Your task to perform on an android device: change the clock display to digital Image 0: 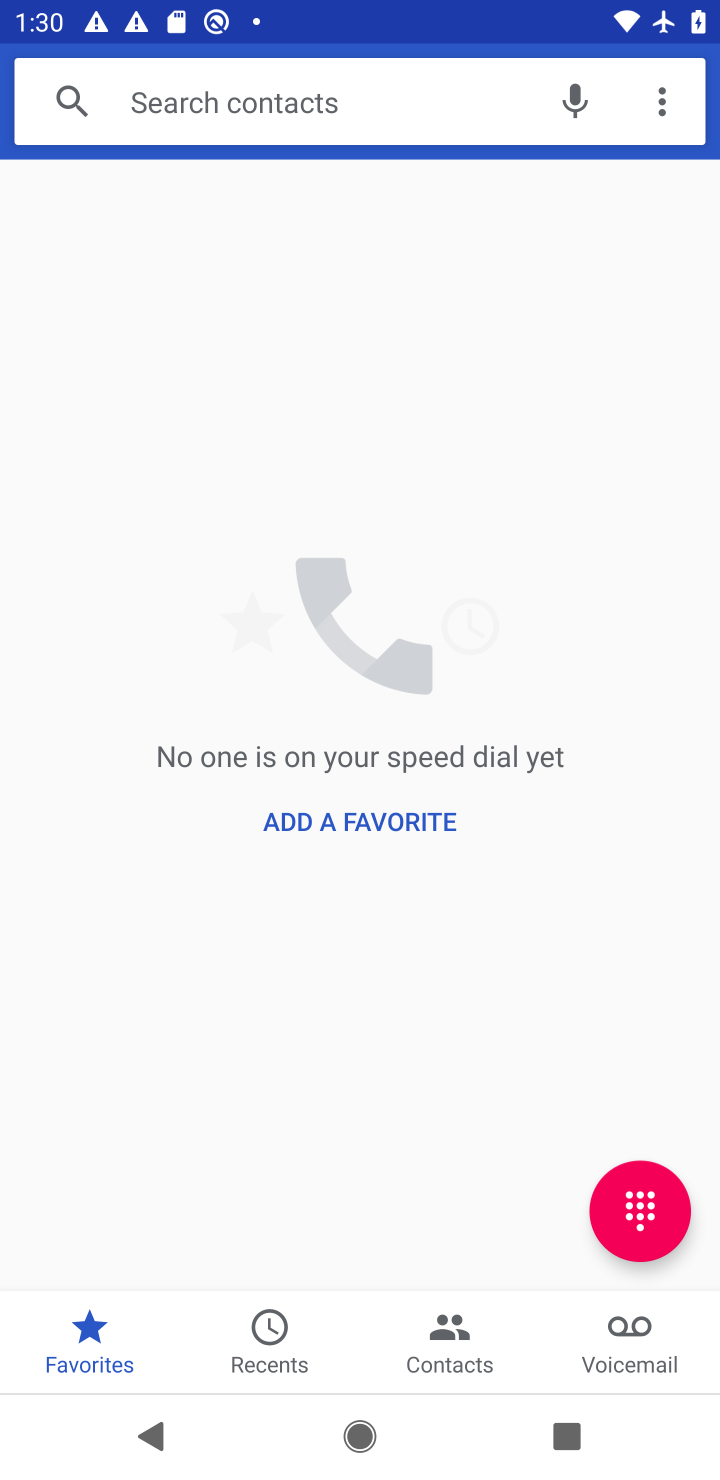
Step 0: press home button
Your task to perform on an android device: change the clock display to digital Image 1: 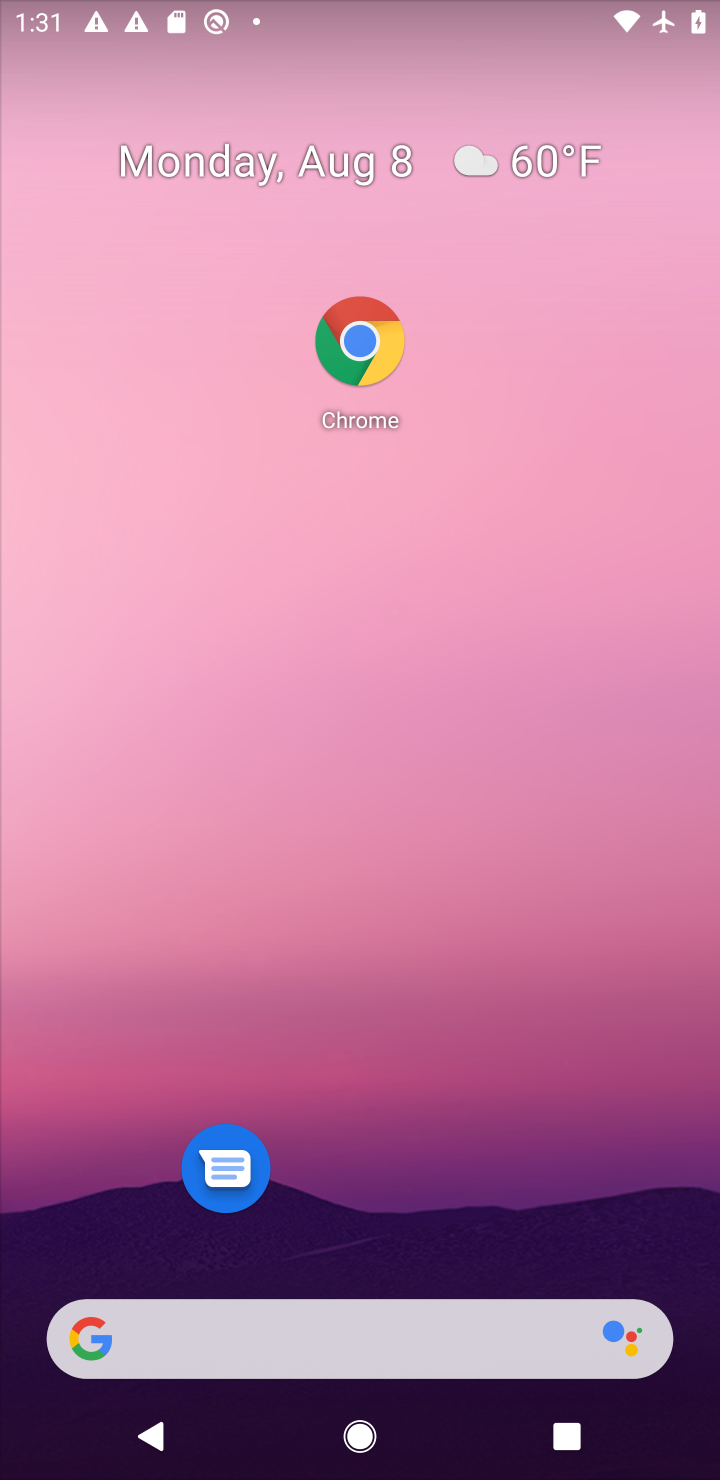
Step 1: drag from (565, 1255) to (389, 60)
Your task to perform on an android device: change the clock display to digital Image 2: 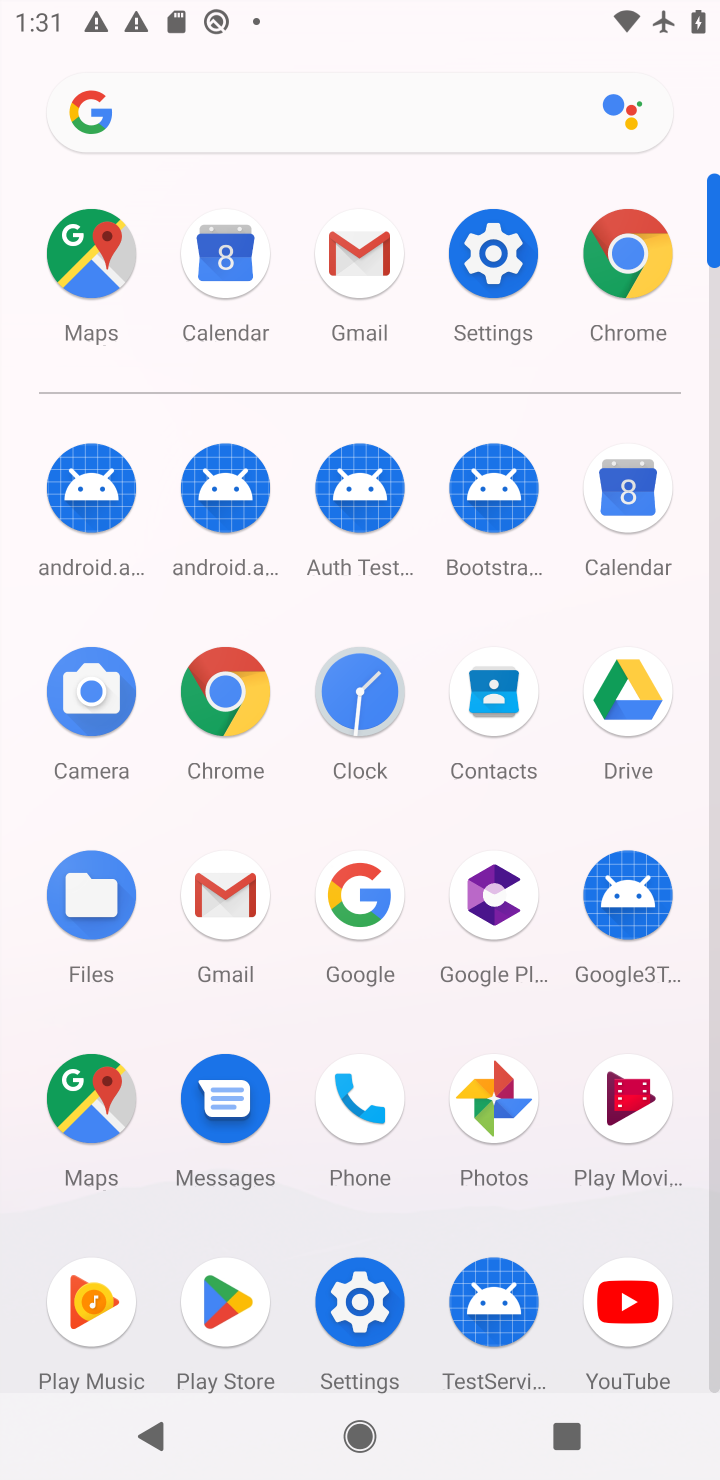
Step 2: click (350, 827)
Your task to perform on an android device: change the clock display to digital Image 3: 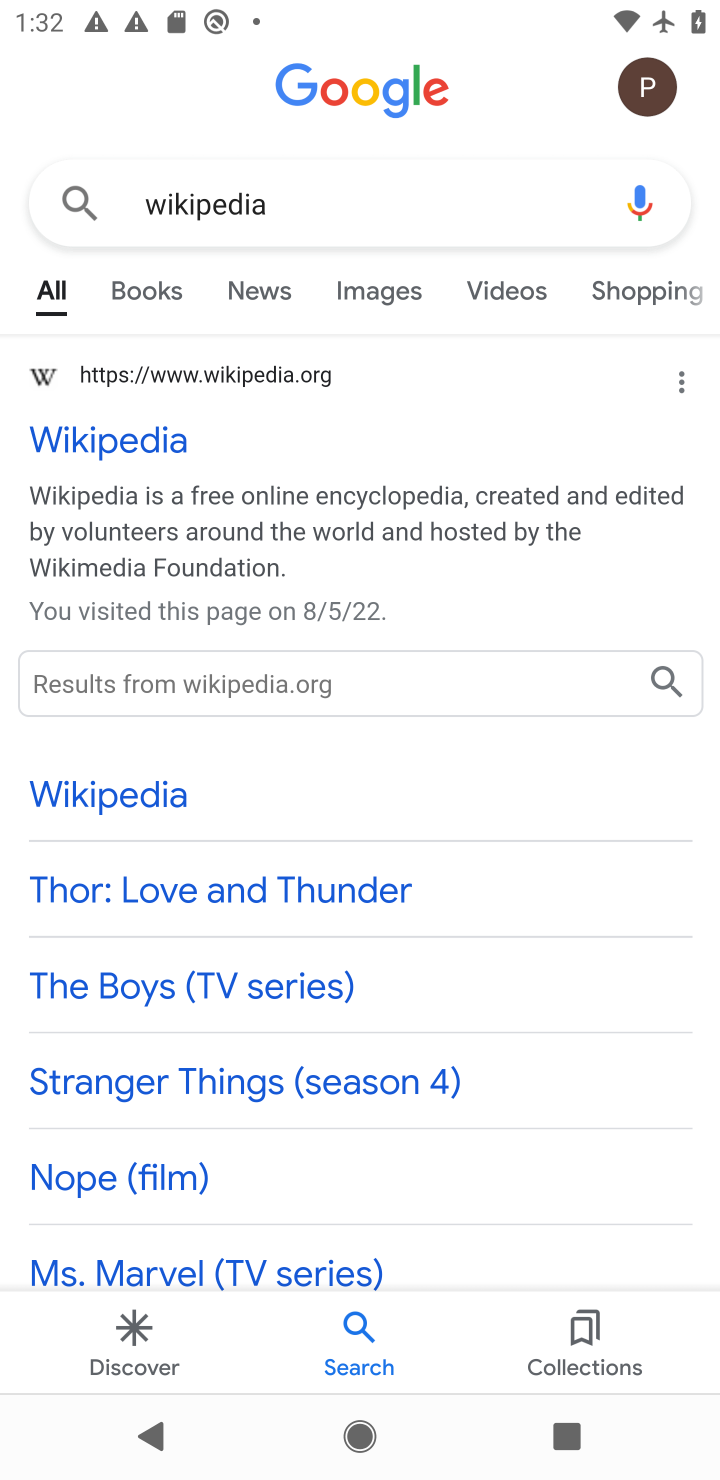
Step 3: press home button
Your task to perform on an android device: change the clock display to digital Image 4: 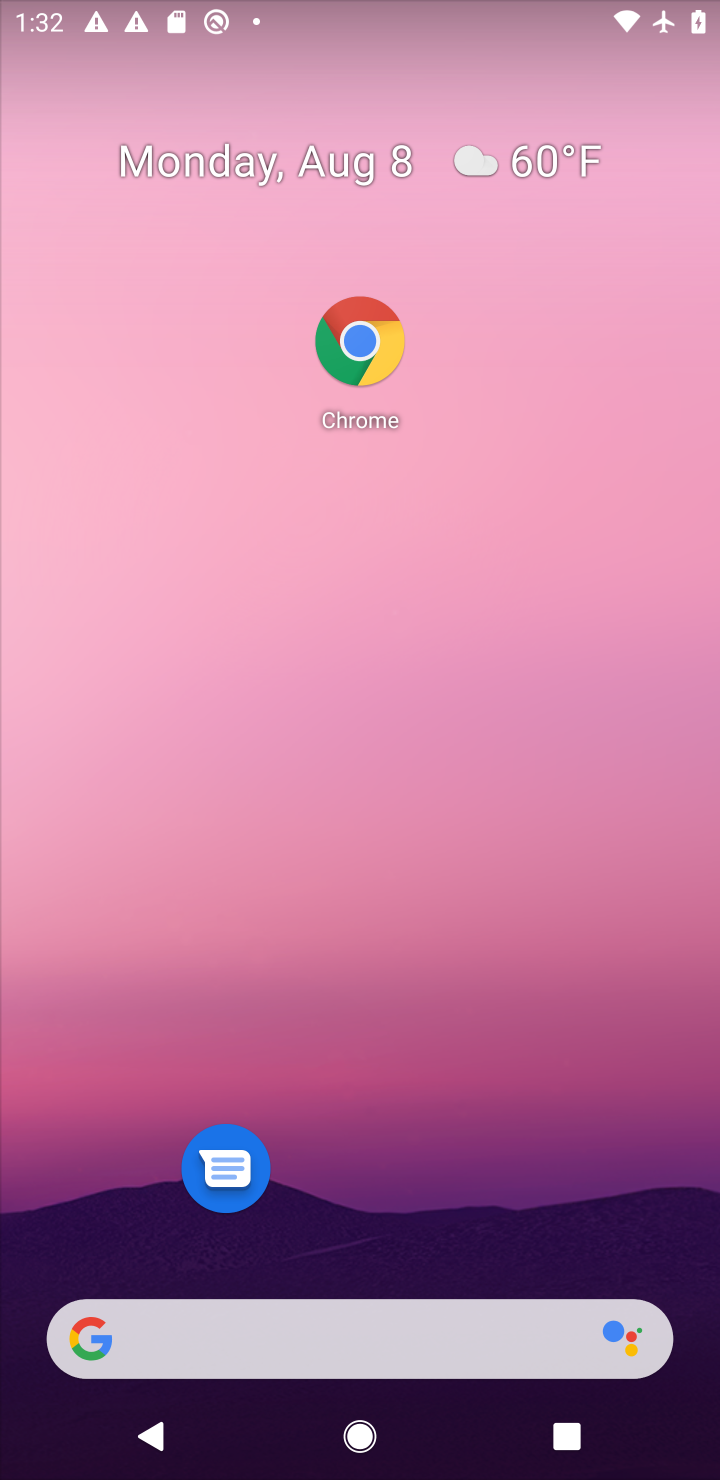
Step 4: drag from (502, 620) to (413, 212)
Your task to perform on an android device: change the clock display to digital Image 5: 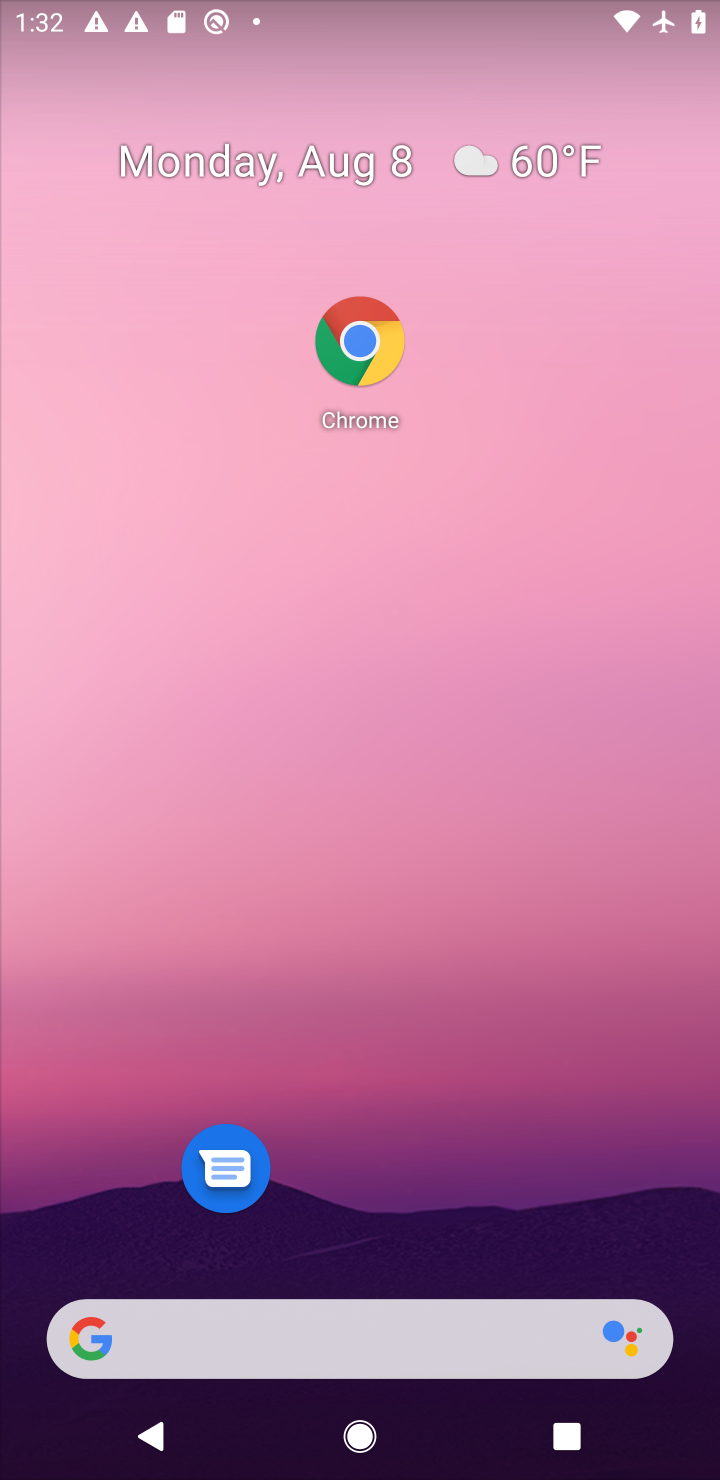
Step 5: drag from (506, 1258) to (440, 164)
Your task to perform on an android device: change the clock display to digital Image 6: 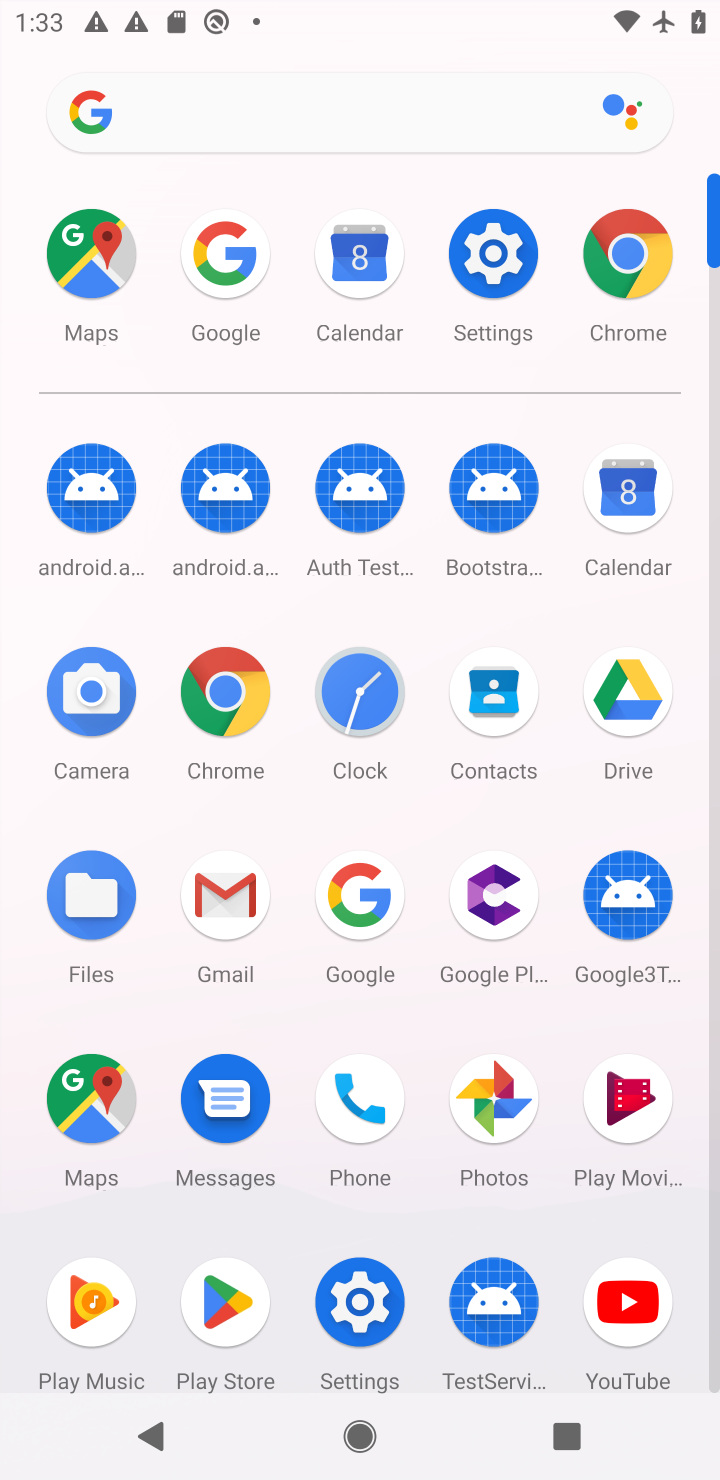
Step 6: click (383, 735)
Your task to perform on an android device: change the clock display to digital Image 7: 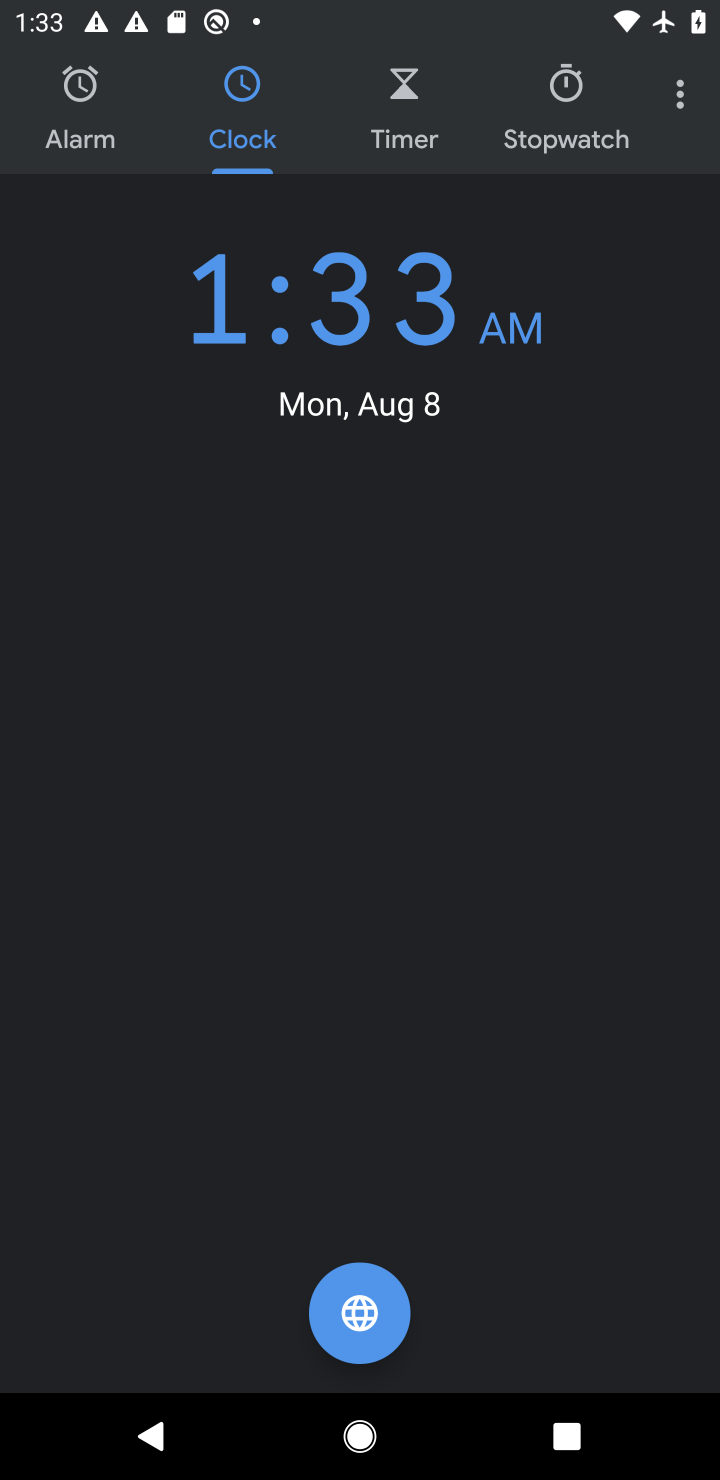
Step 7: task complete